Your task to perform on an android device: Open eBay Image 0: 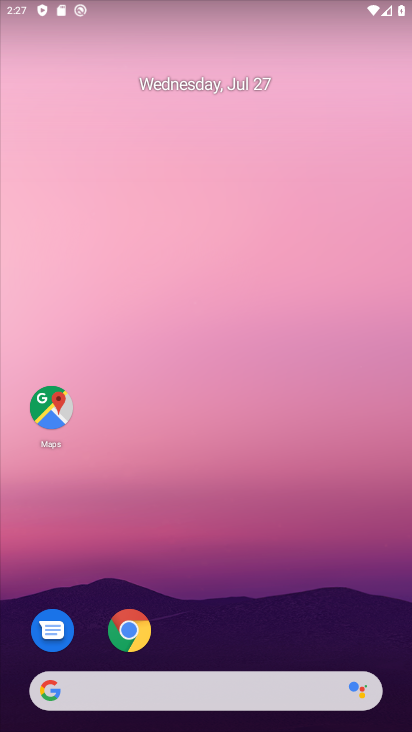
Step 0: press home button
Your task to perform on an android device: Open eBay Image 1: 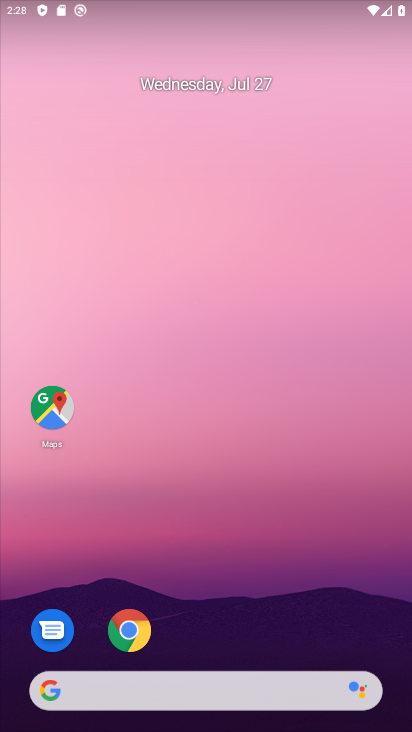
Step 1: click (65, 681)
Your task to perform on an android device: Open eBay Image 2: 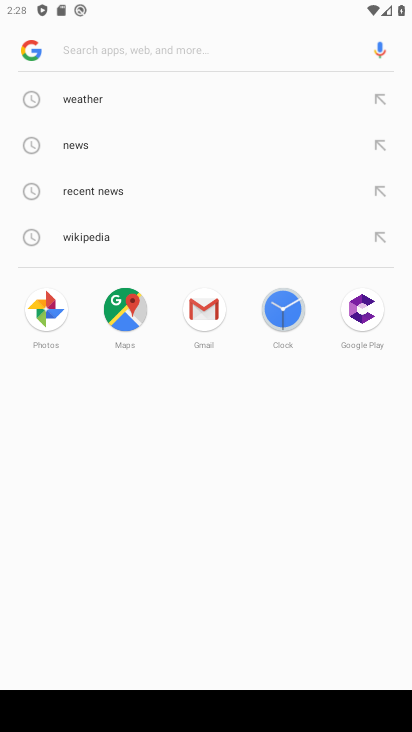
Step 2: type "eBay"
Your task to perform on an android device: Open eBay Image 3: 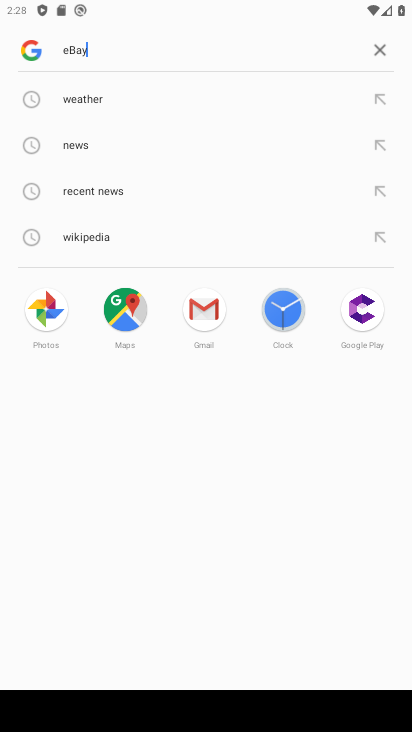
Step 3: press enter
Your task to perform on an android device: Open eBay Image 4: 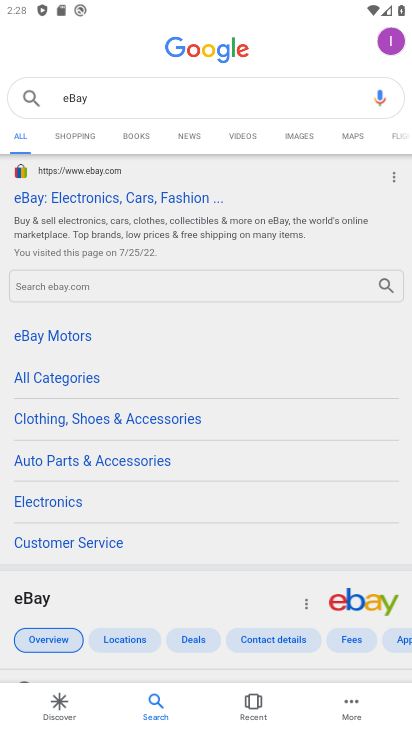
Step 4: click (132, 192)
Your task to perform on an android device: Open eBay Image 5: 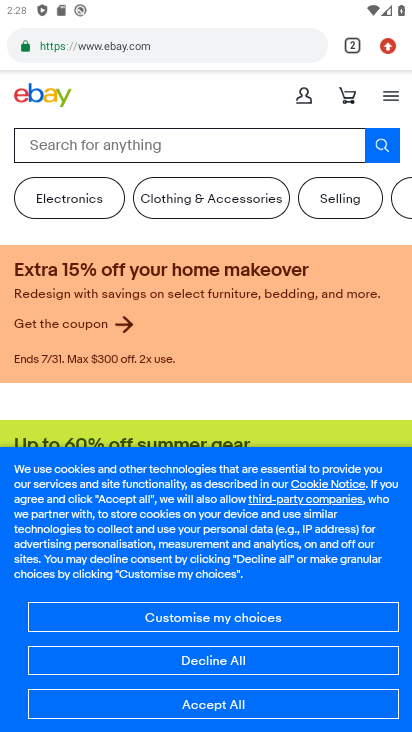
Step 5: task complete